Your task to perform on an android device: change notification settings in the gmail app Image 0: 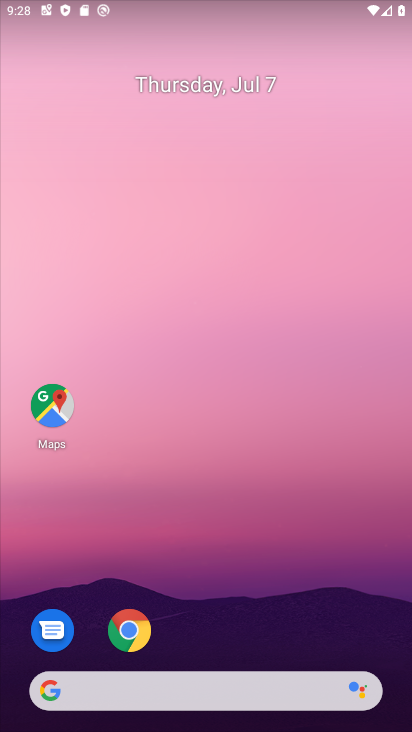
Step 0: drag from (180, 653) to (223, 453)
Your task to perform on an android device: change notification settings in the gmail app Image 1: 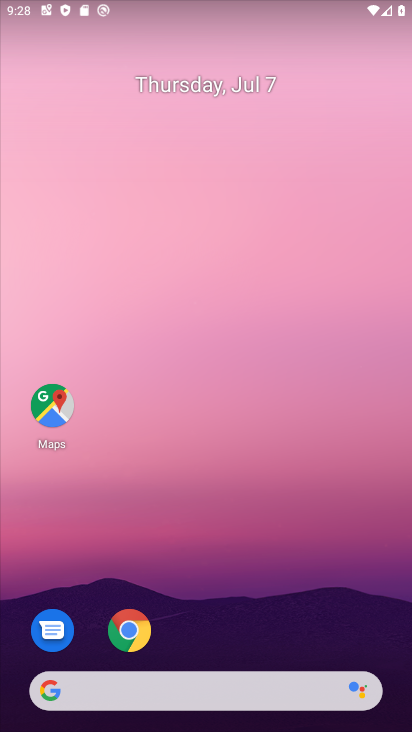
Step 1: drag from (193, 605) to (218, 189)
Your task to perform on an android device: change notification settings in the gmail app Image 2: 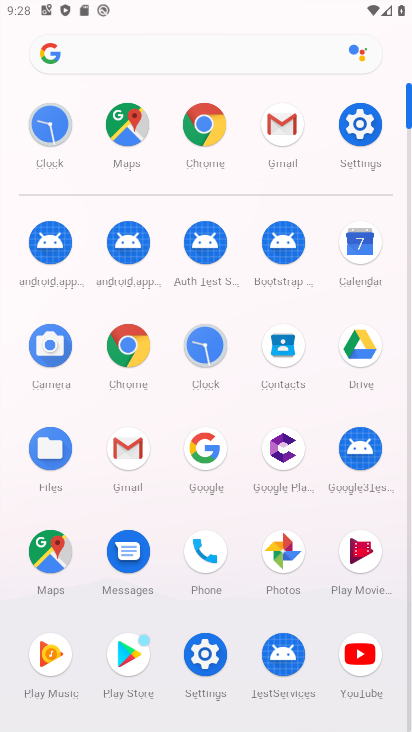
Step 2: click (273, 136)
Your task to perform on an android device: change notification settings in the gmail app Image 3: 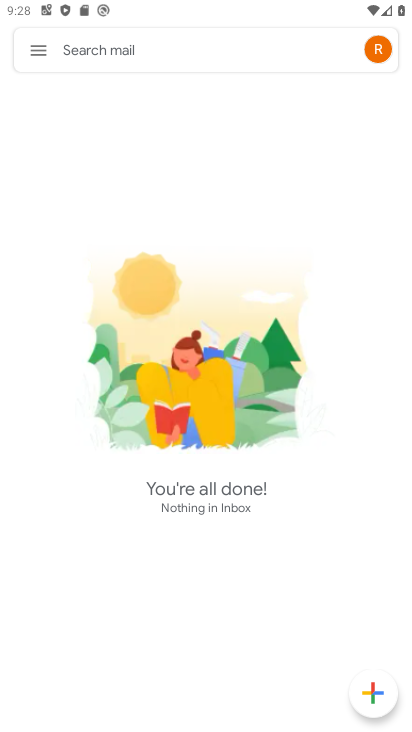
Step 3: click (45, 51)
Your task to perform on an android device: change notification settings in the gmail app Image 4: 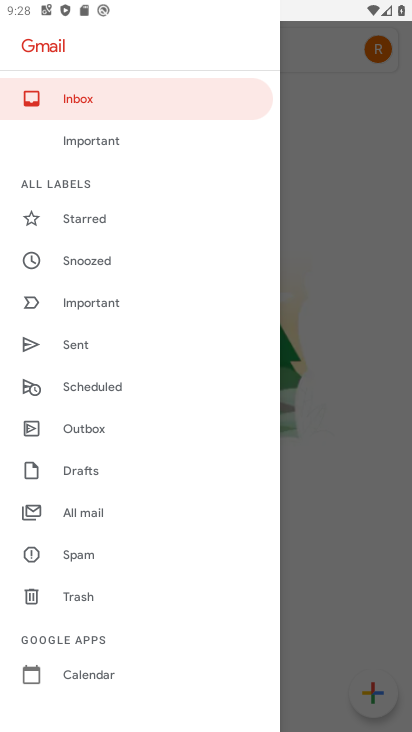
Step 4: drag from (83, 676) to (118, 302)
Your task to perform on an android device: change notification settings in the gmail app Image 5: 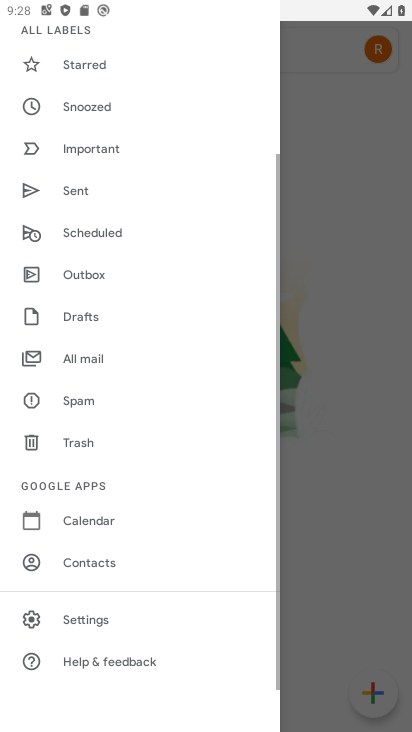
Step 5: click (107, 635)
Your task to perform on an android device: change notification settings in the gmail app Image 6: 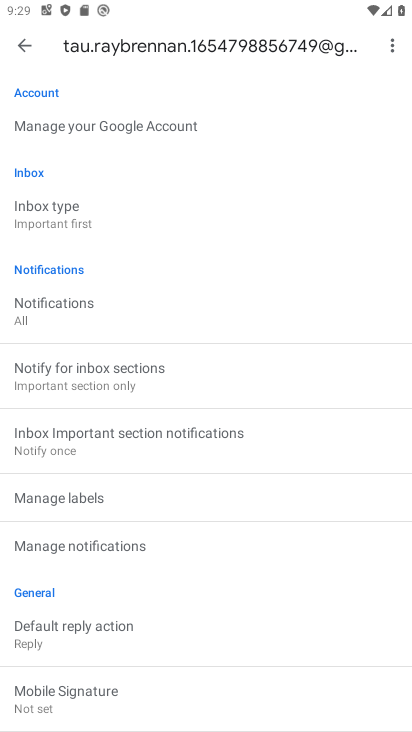
Step 6: click (55, 547)
Your task to perform on an android device: change notification settings in the gmail app Image 7: 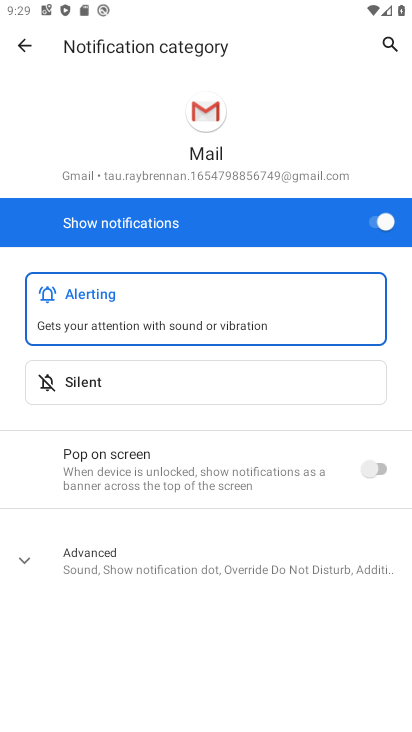
Step 7: click (372, 222)
Your task to perform on an android device: change notification settings in the gmail app Image 8: 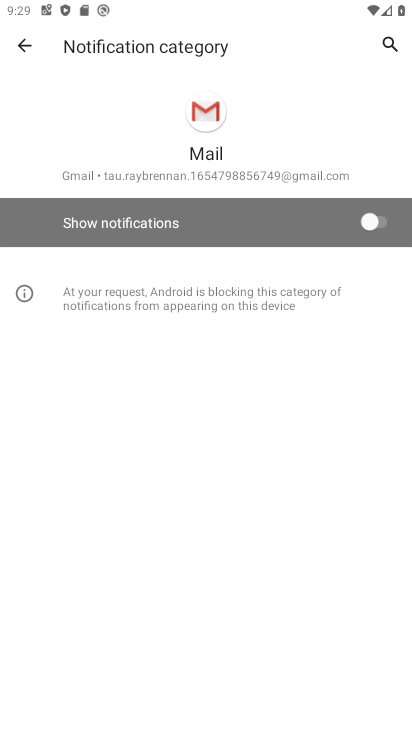
Step 8: task complete